Your task to perform on an android device: turn notification dots on Image 0: 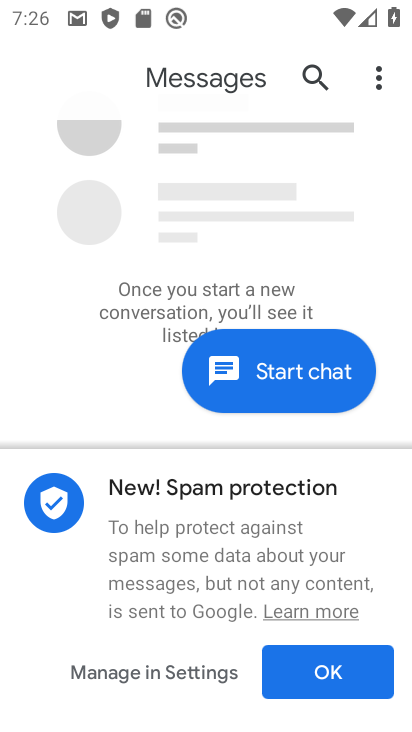
Step 0: press home button
Your task to perform on an android device: turn notification dots on Image 1: 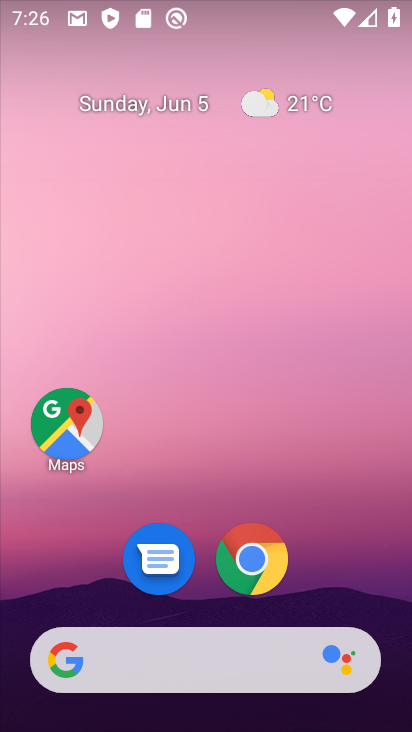
Step 1: drag from (242, 630) to (83, 16)
Your task to perform on an android device: turn notification dots on Image 2: 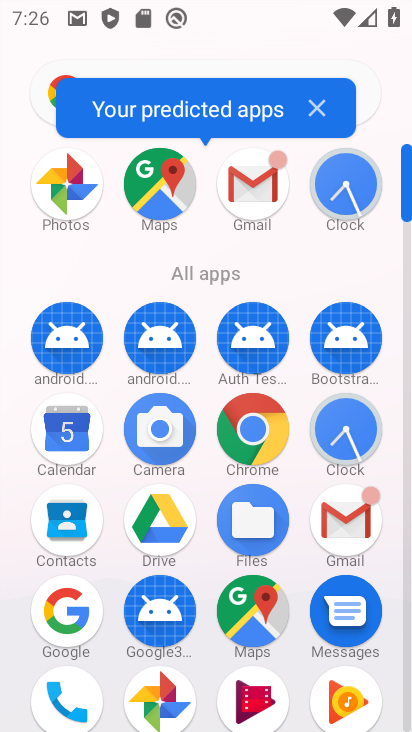
Step 2: drag from (118, 654) to (73, 0)
Your task to perform on an android device: turn notification dots on Image 3: 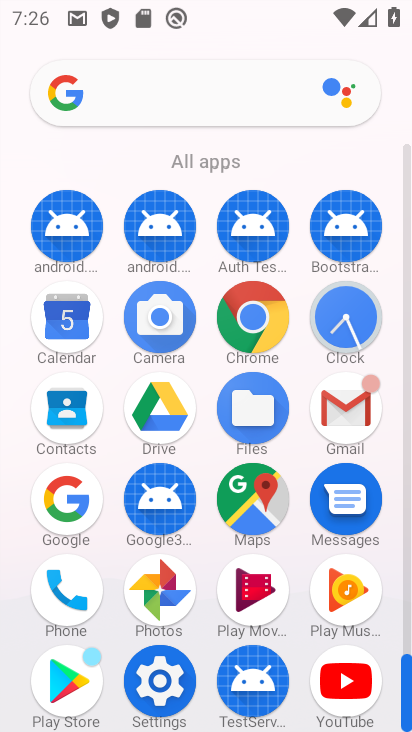
Step 3: click (184, 691)
Your task to perform on an android device: turn notification dots on Image 4: 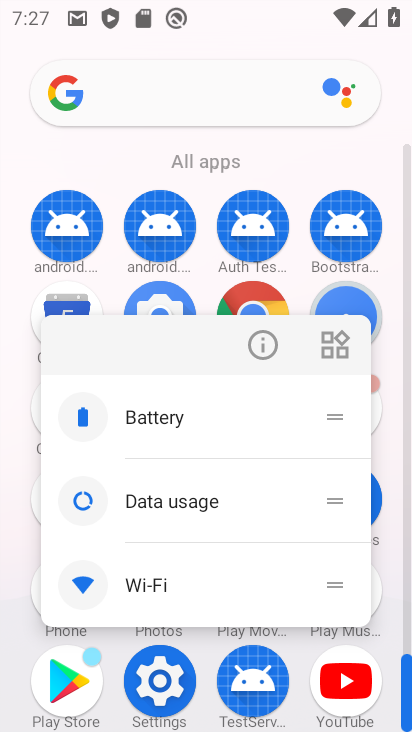
Step 4: click (169, 668)
Your task to perform on an android device: turn notification dots on Image 5: 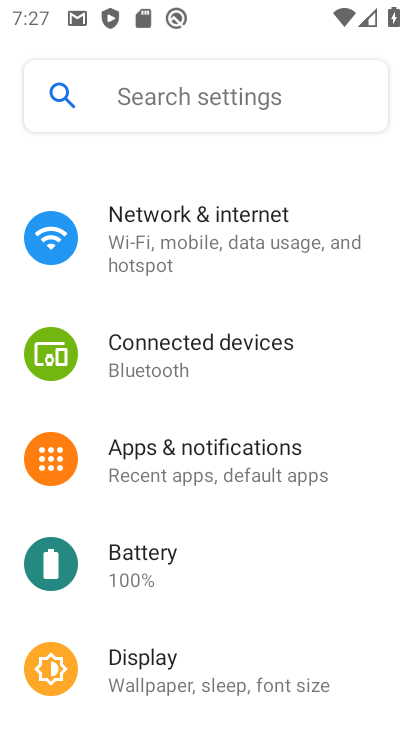
Step 5: drag from (197, 590) to (154, 424)
Your task to perform on an android device: turn notification dots on Image 6: 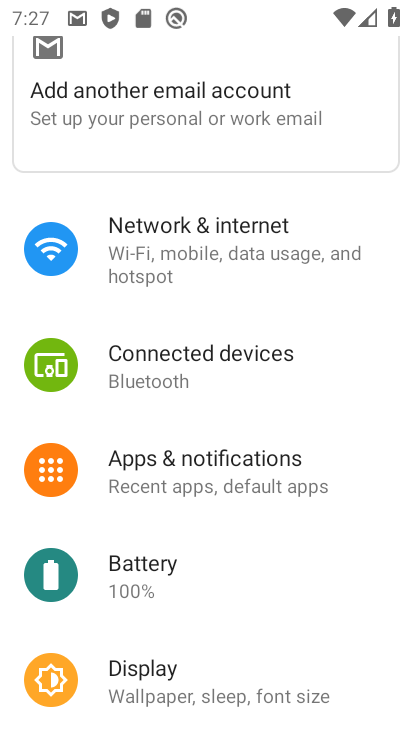
Step 6: click (186, 486)
Your task to perform on an android device: turn notification dots on Image 7: 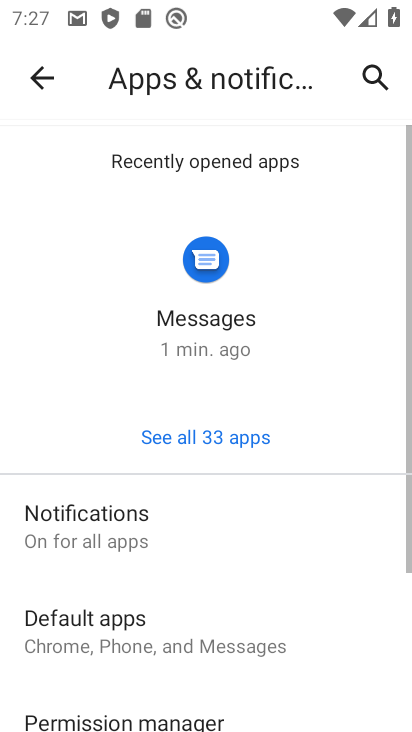
Step 7: drag from (227, 535) to (164, 294)
Your task to perform on an android device: turn notification dots on Image 8: 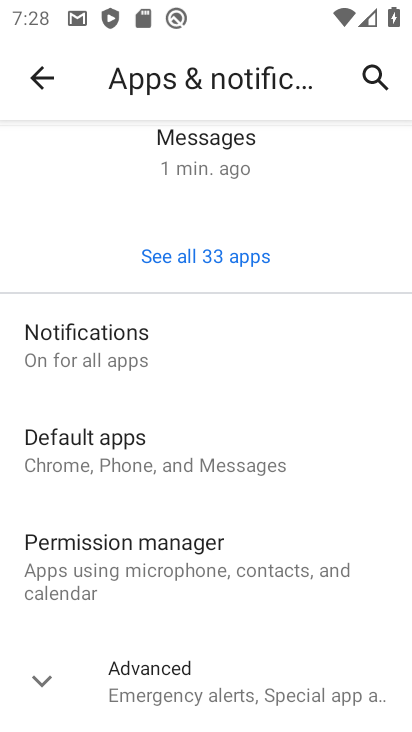
Step 8: click (211, 677)
Your task to perform on an android device: turn notification dots on Image 9: 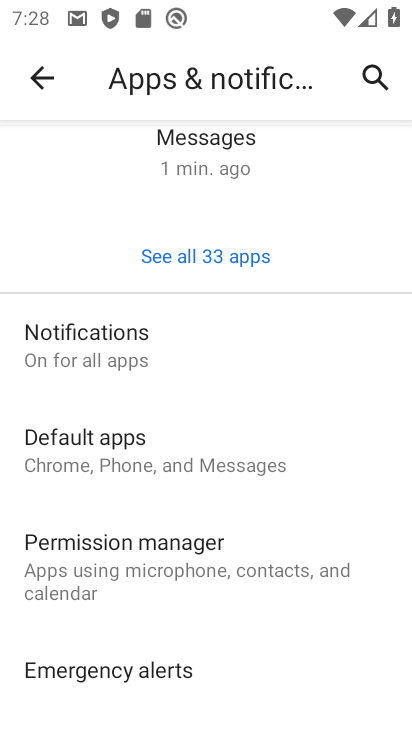
Step 9: click (153, 340)
Your task to perform on an android device: turn notification dots on Image 10: 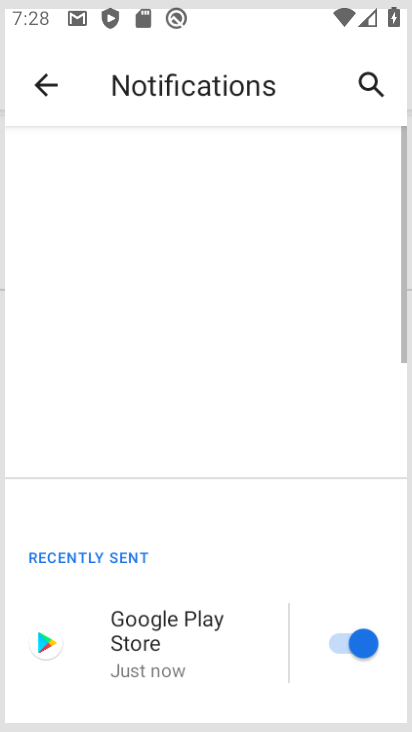
Step 10: drag from (250, 629) to (172, 51)
Your task to perform on an android device: turn notification dots on Image 11: 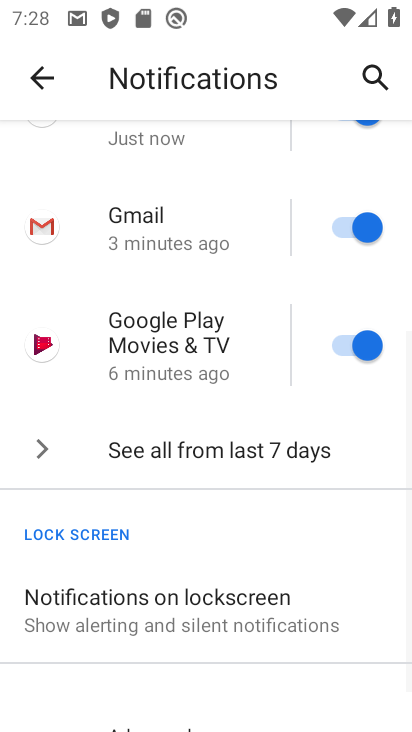
Step 11: drag from (178, 608) to (104, 98)
Your task to perform on an android device: turn notification dots on Image 12: 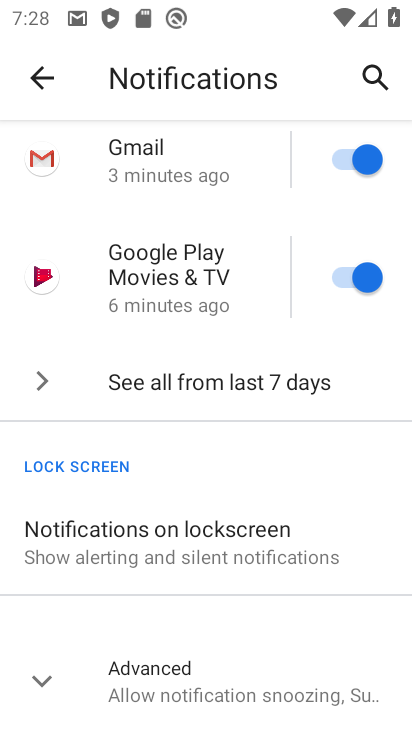
Step 12: click (122, 659)
Your task to perform on an android device: turn notification dots on Image 13: 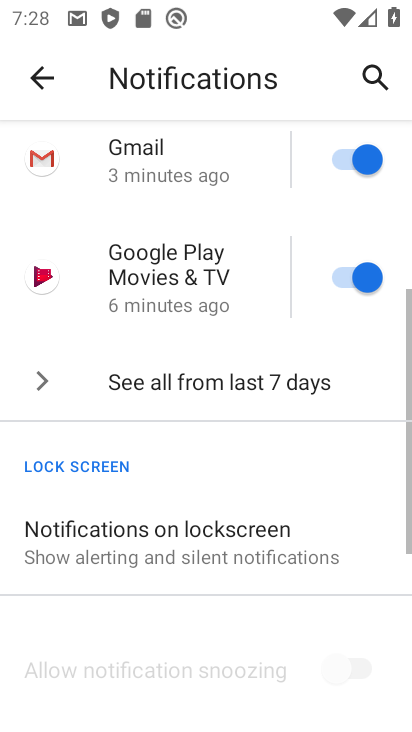
Step 13: task complete